Your task to perform on an android device: Show me recent news Image 0: 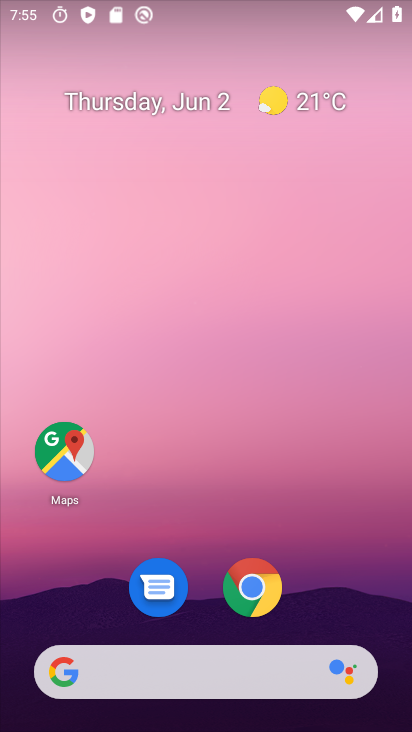
Step 0: click (123, 668)
Your task to perform on an android device: Show me recent news Image 1: 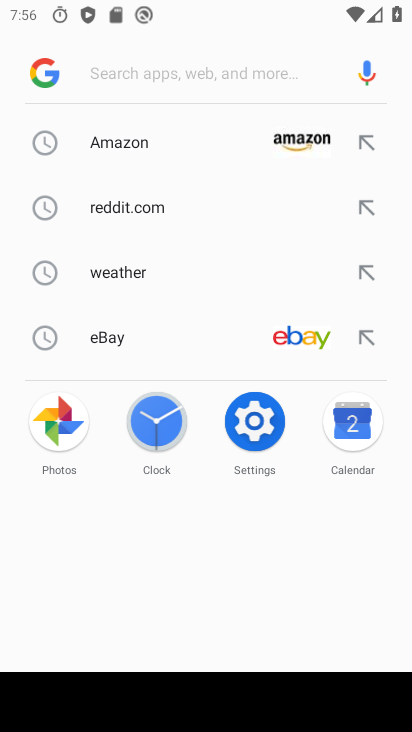
Step 1: type "recent news"
Your task to perform on an android device: Show me recent news Image 2: 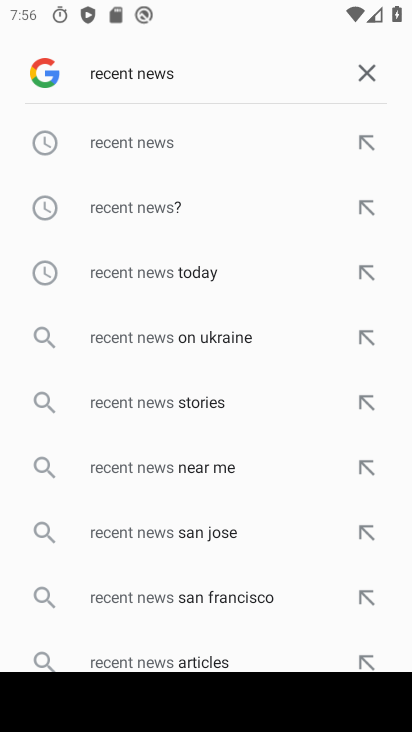
Step 2: click (116, 140)
Your task to perform on an android device: Show me recent news Image 3: 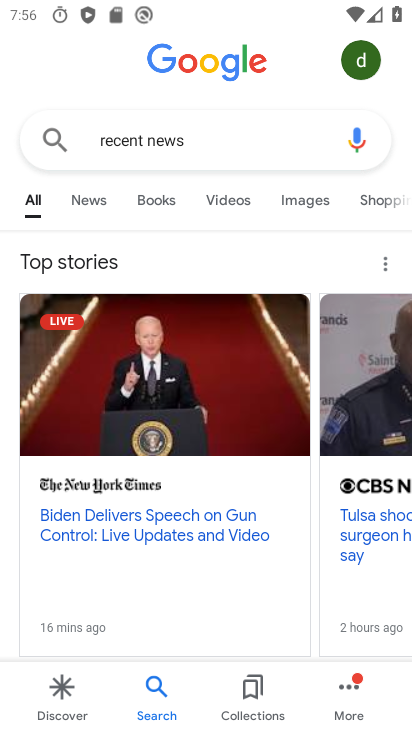
Step 3: click (85, 202)
Your task to perform on an android device: Show me recent news Image 4: 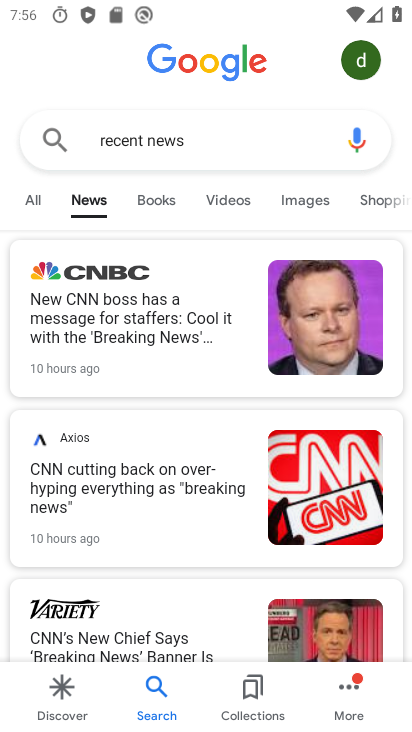
Step 4: drag from (103, 490) to (108, 187)
Your task to perform on an android device: Show me recent news Image 5: 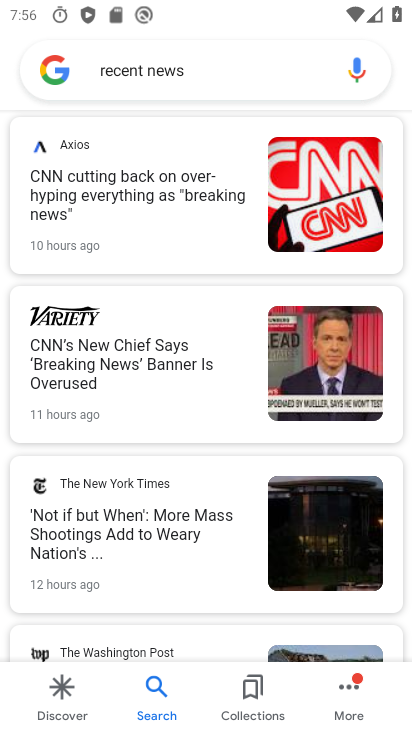
Step 5: drag from (107, 466) to (98, 118)
Your task to perform on an android device: Show me recent news Image 6: 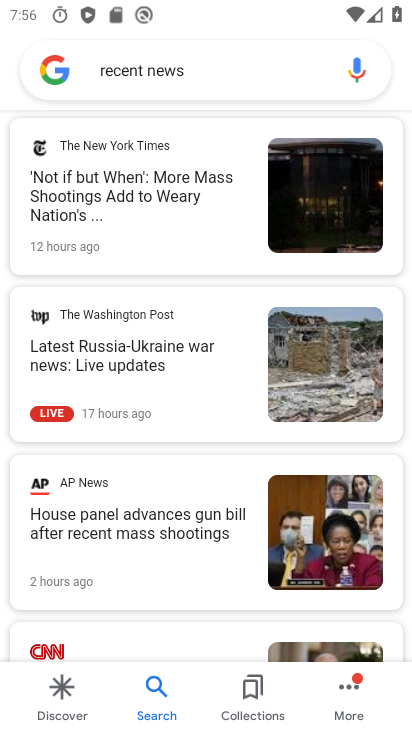
Step 6: drag from (159, 424) to (132, 177)
Your task to perform on an android device: Show me recent news Image 7: 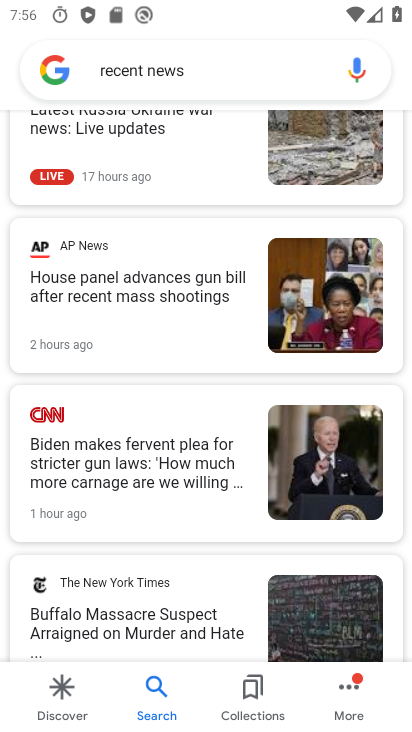
Step 7: drag from (126, 479) to (121, 238)
Your task to perform on an android device: Show me recent news Image 8: 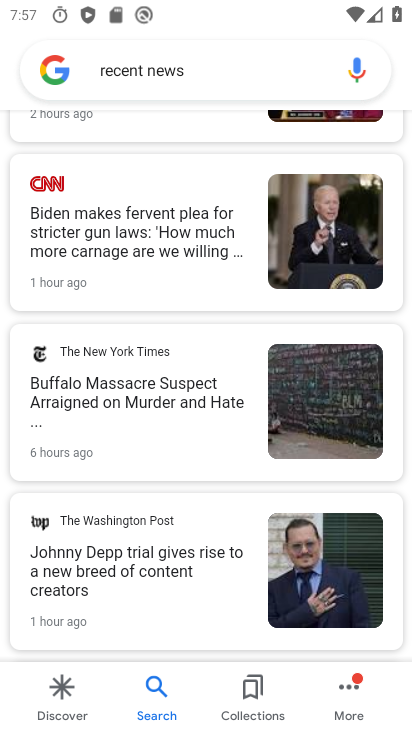
Step 8: click (108, 307)
Your task to perform on an android device: Show me recent news Image 9: 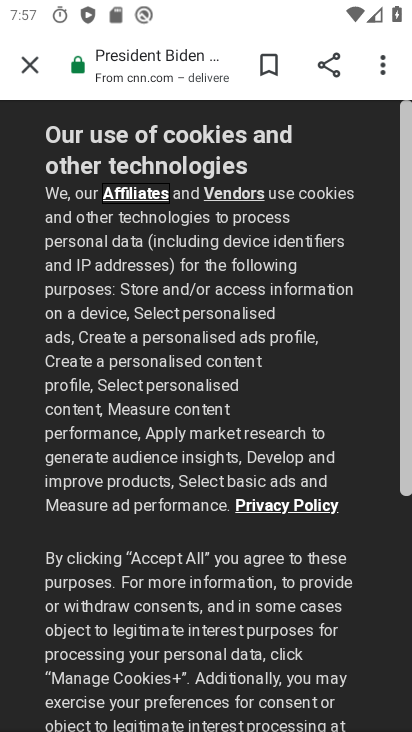
Step 9: task complete